Your task to perform on an android device: Search for Italian restaurants on Maps Image 0: 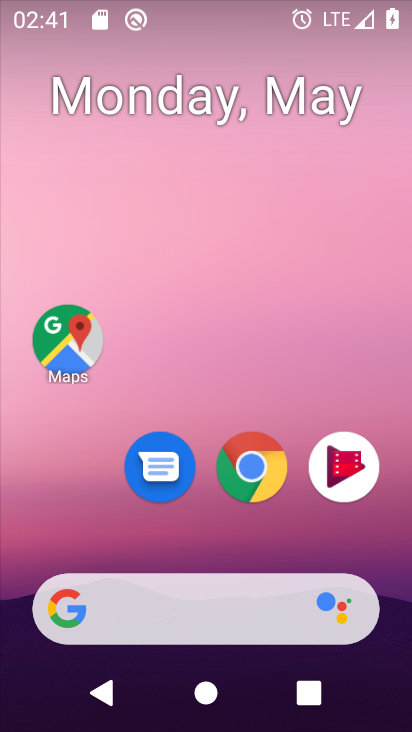
Step 0: drag from (213, 544) to (211, 289)
Your task to perform on an android device: Search for Italian restaurants on Maps Image 1: 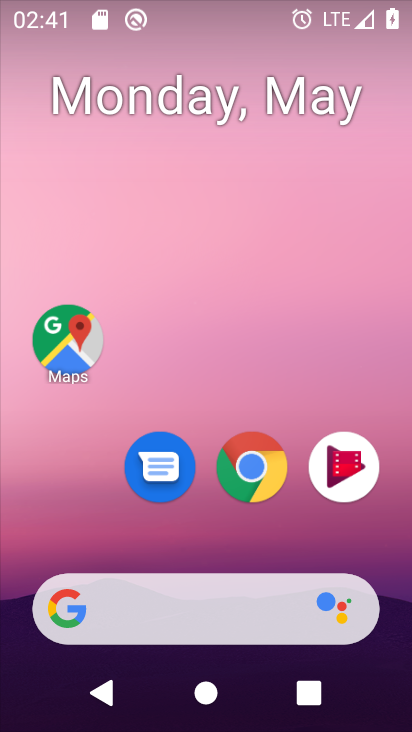
Step 1: drag from (176, 490) to (227, 107)
Your task to perform on an android device: Search for Italian restaurants on Maps Image 2: 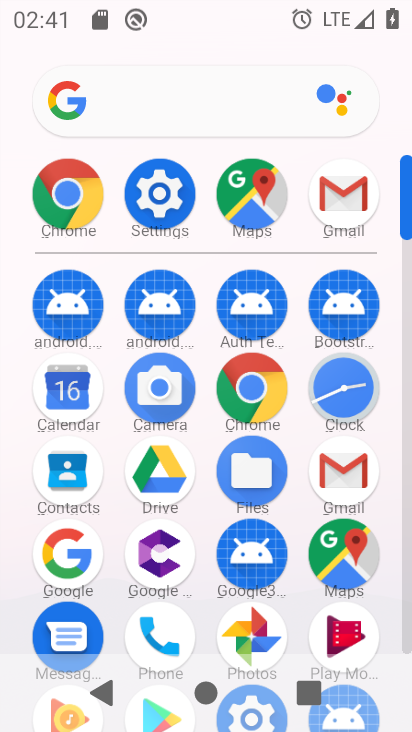
Step 2: click (339, 549)
Your task to perform on an android device: Search for Italian restaurants on Maps Image 3: 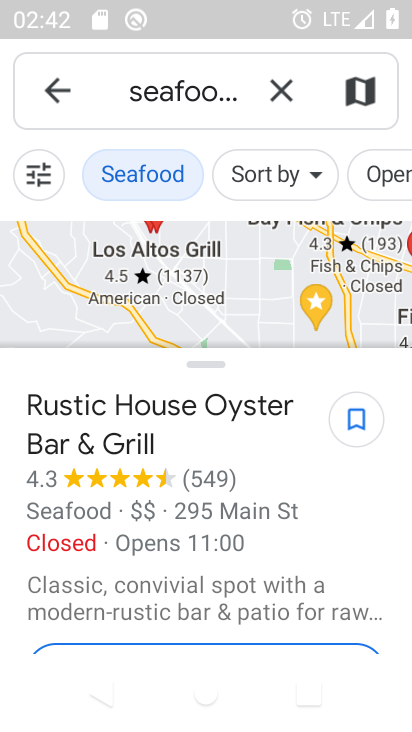
Step 3: click (262, 87)
Your task to perform on an android device: Search for Italian restaurants on Maps Image 4: 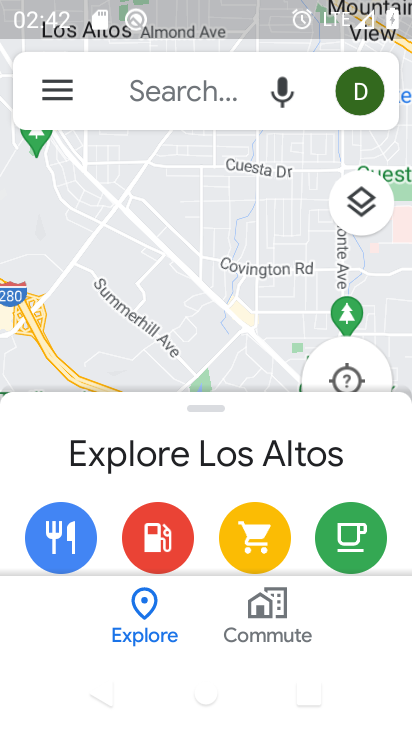
Step 4: click (136, 92)
Your task to perform on an android device: Search for Italian restaurants on Maps Image 5: 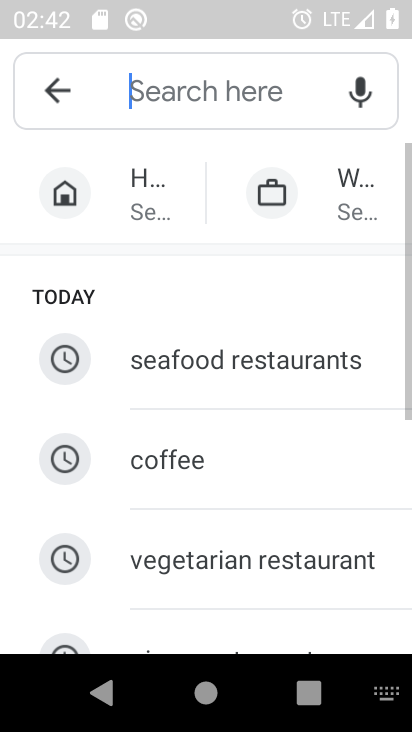
Step 5: drag from (234, 579) to (325, 317)
Your task to perform on an android device: Search for Italian restaurants on Maps Image 6: 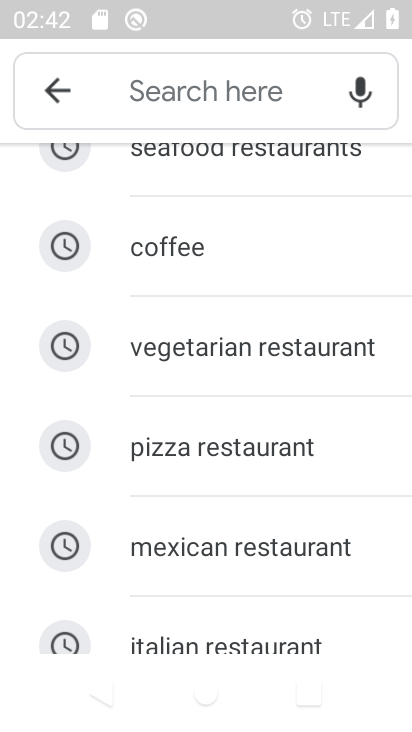
Step 6: click (274, 622)
Your task to perform on an android device: Search for Italian restaurants on Maps Image 7: 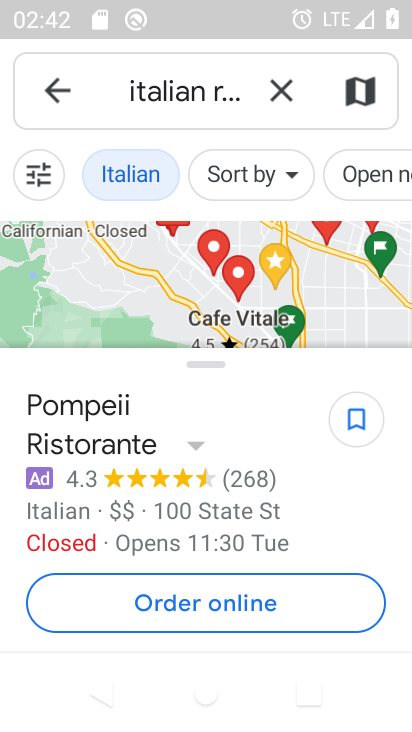
Step 7: task complete